Your task to perform on an android device: turn off location Image 0: 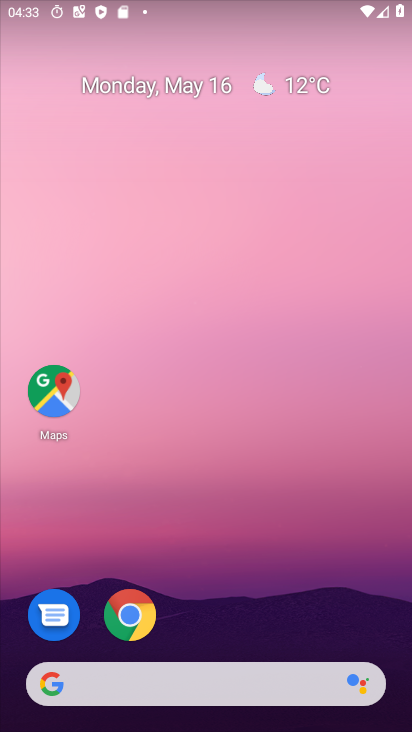
Step 0: drag from (394, 714) to (211, 0)
Your task to perform on an android device: turn off location Image 1: 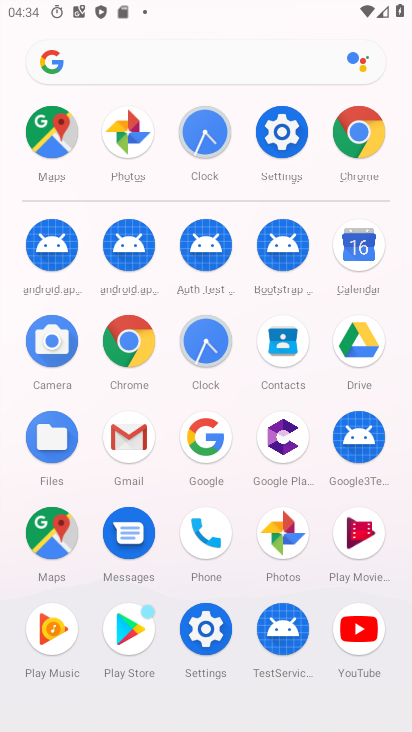
Step 1: click (210, 351)
Your task to perform on an android device: turn off location Image 2: 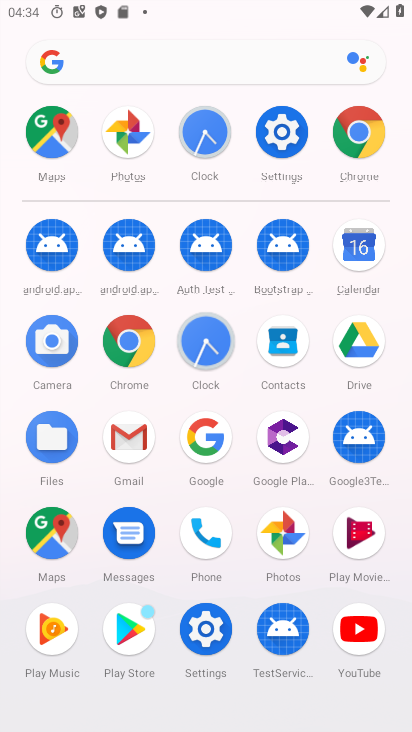
Step 2: click (210, 349)
Your task to perform on an android device: turn off location Image 3: 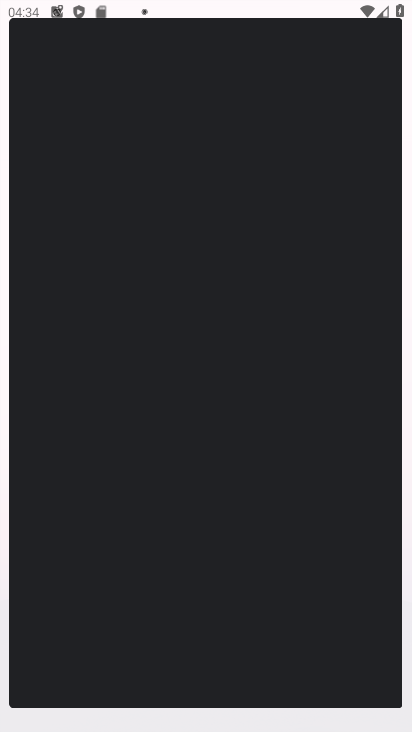
Step 3: click (210, 348)
Your task to perform on an android device: turn off location Image 4: 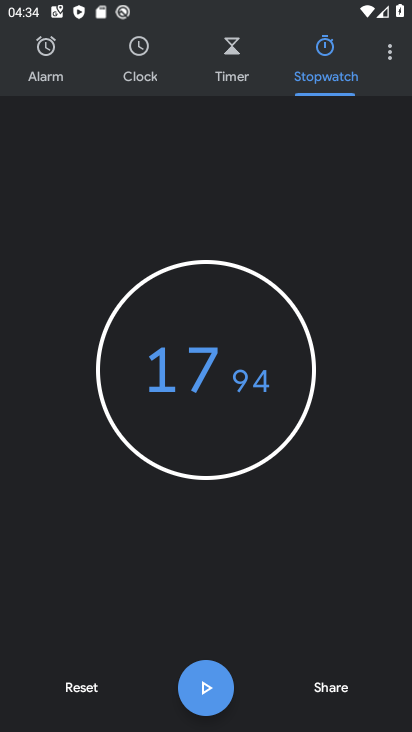
Step 4: click (390, 62)
Your task to perform on an android device: turn off location Image 5: 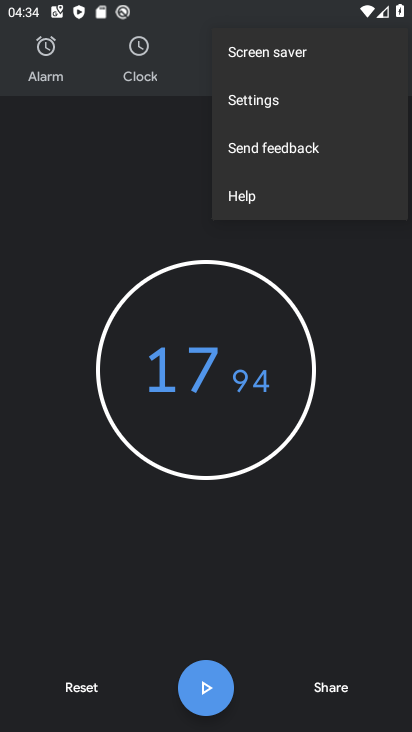
Step 5: click (252, 104)
Your task to perform on an android device: turn off location Image 6: 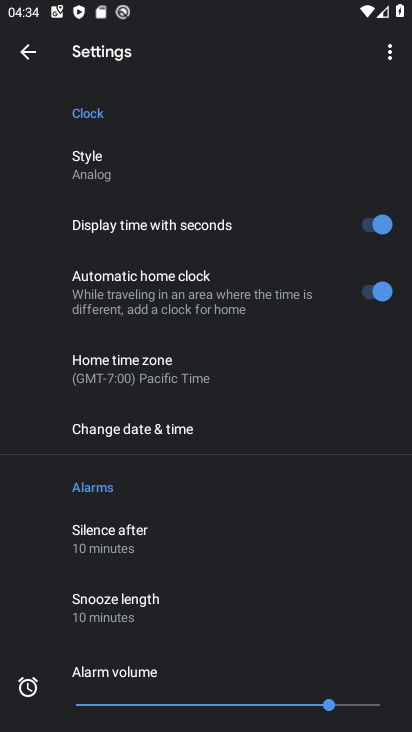
Step 6: click (32, 61)
Your task to perform on an android device: turn off location Image 7: 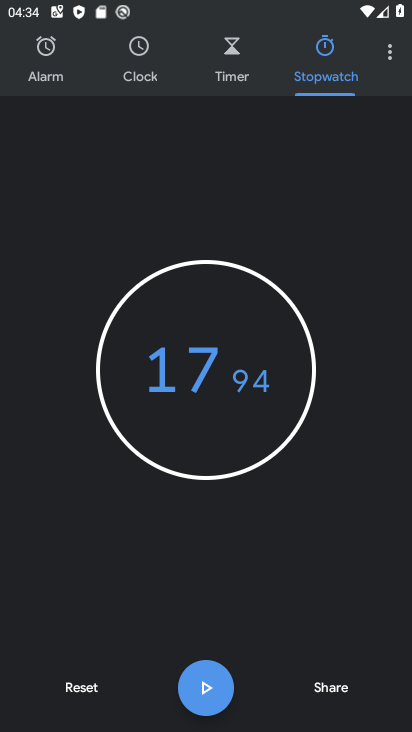
Step 7: click (382, 50)
Your task to perform on an android device: turn off location Image 8: 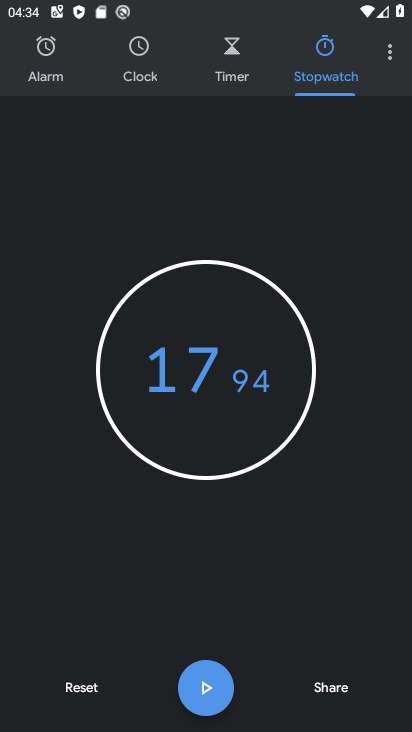
Step 8: click (387, 54)
Your task to perform on an android device: turn off location Image 9: 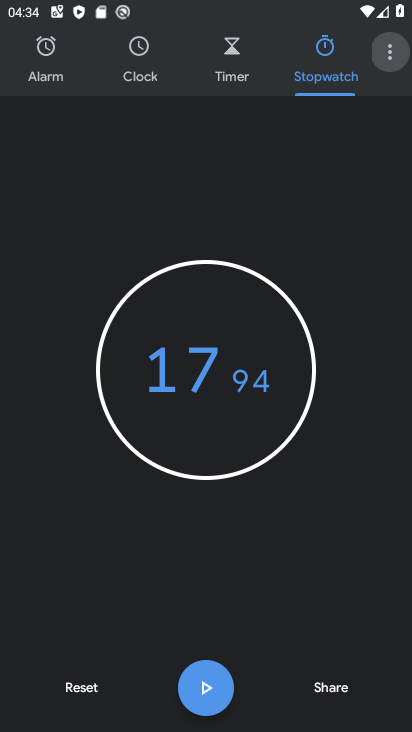
Step 9: click (393, 54)
Your task to perform on an android device: turn off location Image 10: 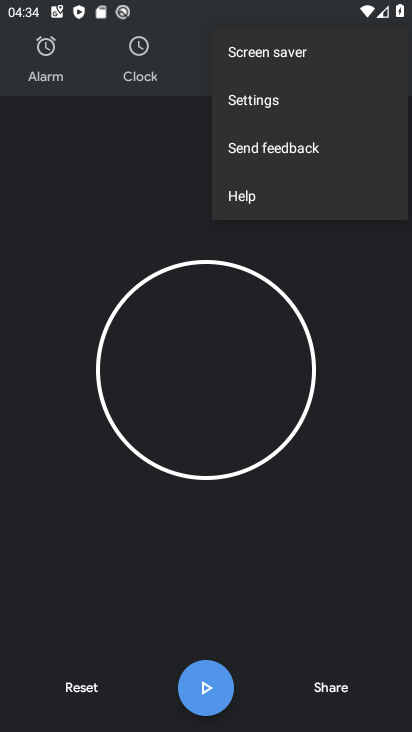
Step 10: click (397, 57)
Your task to perform on an android device: turn off location Image 11: 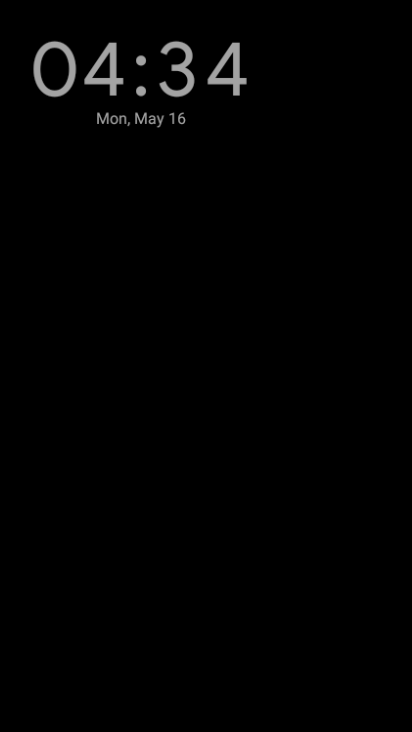
Step 11: press back button
Your task to perform on an android device: turn off location Image 12: 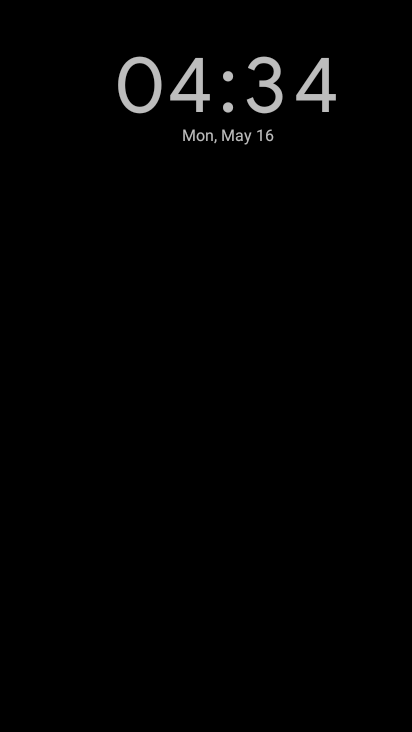
Step 12: press back button
Your task to perform on an android device: turn off location Image 13: 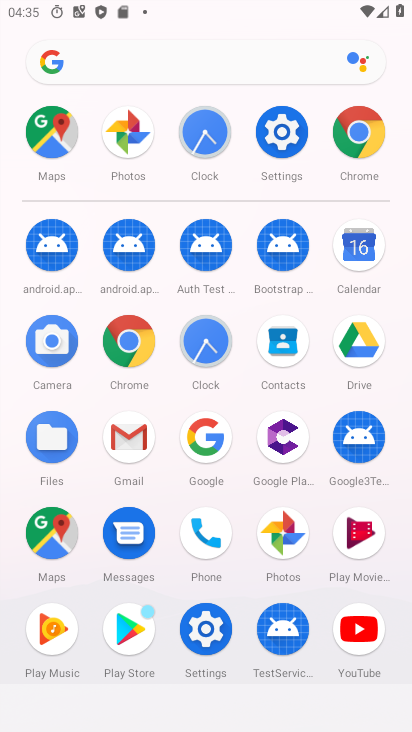
Step 13: click (287, 144)
Your task to perform on an android device: turn off location Image 14: 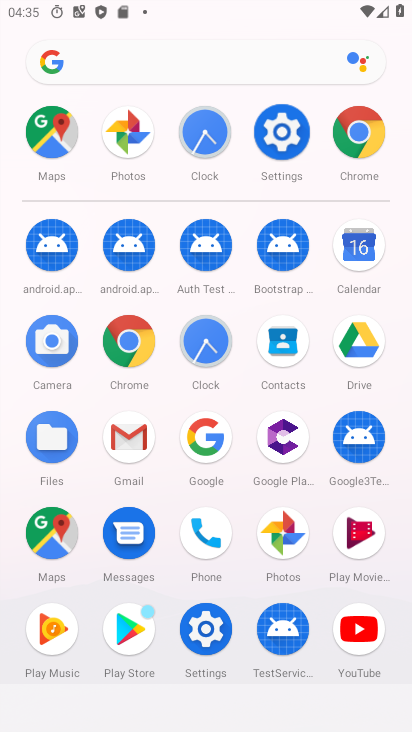
Step 14: click (285, 135)
Your task to perform on an android device: turn off location Image 15: 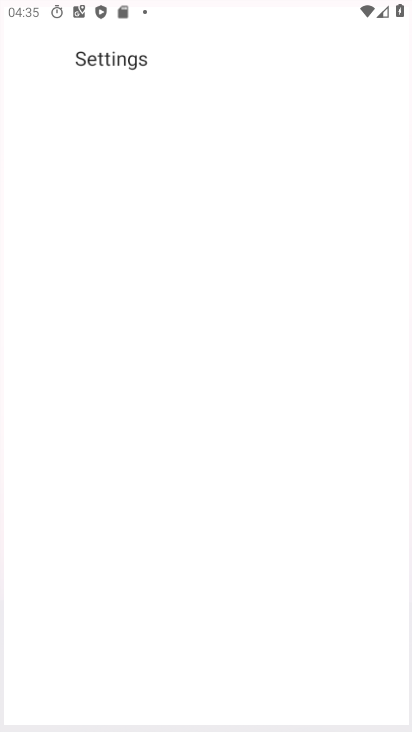
Step 15: click (278, 135)
Your task to perform on an android device: turn off location Image 16: 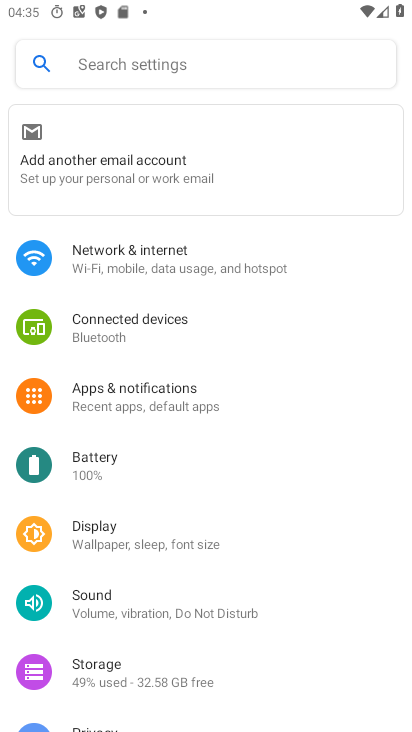
Step 16: drag from (150, 468) to (83, 121)
Your task to perform on an android device: turn off location Image 17: 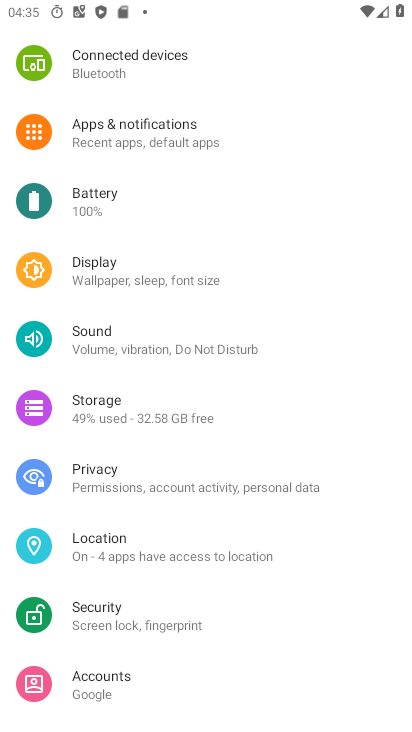
Step 17: drag from (164, 573) to (131, 204)
Your task to perform on an android device: turn off location Image 18: 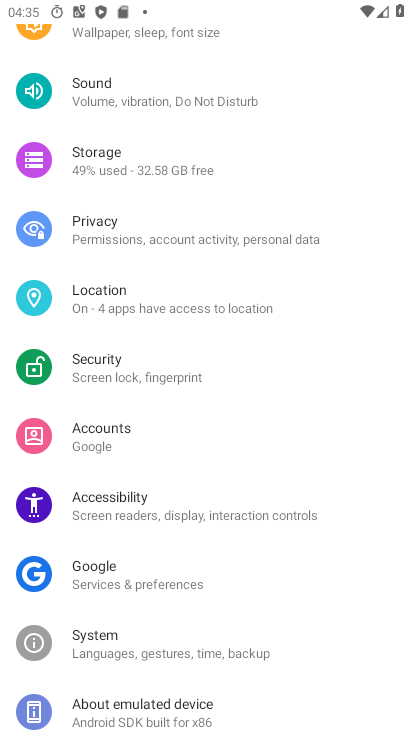
Step 18: drag from (72, 186) to (75, 22)
Your task to perform on an android device: turn off location Image 19: 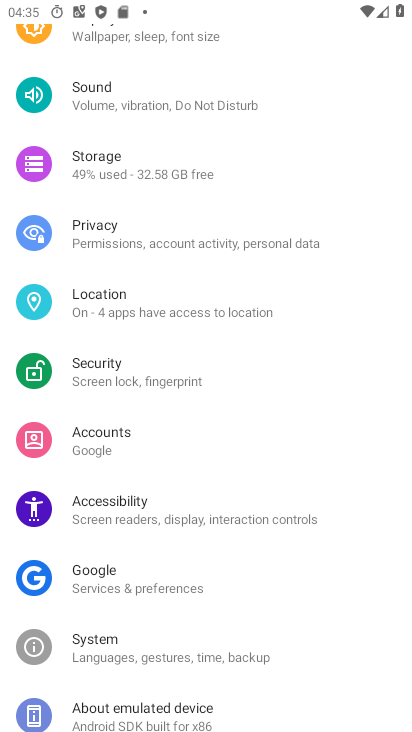
Step 19: click (121, 304)
Your task to perform on an android device: turn off location Image 20: 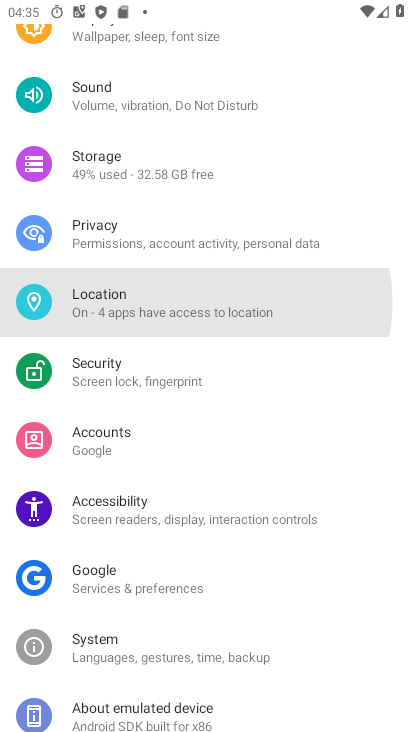
Step 20: click (121, 304)
Your task to perform on an android device: turn off location Image 21: 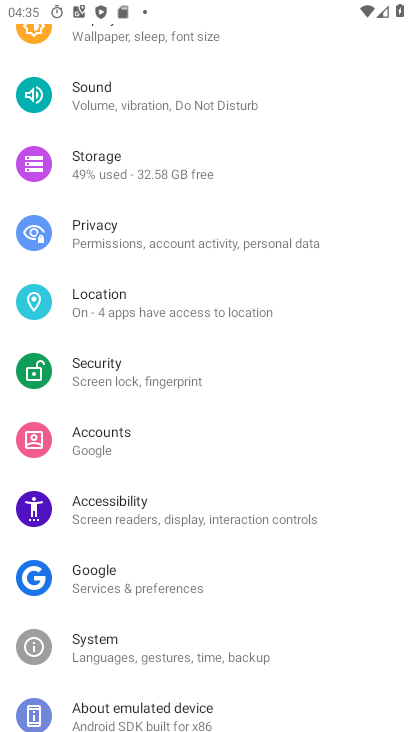
Step 21: click (130, 315)
Your task to perform on an android device: turn off location Image 22: 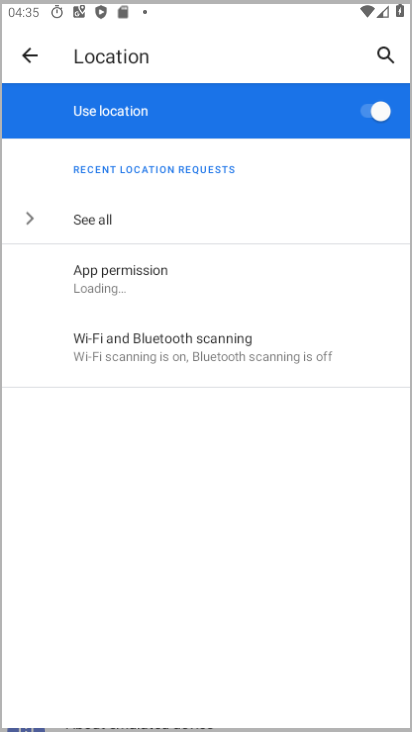
Step 22: click (133, 318)
Your task to perform on an android device: turn off location Image 23: 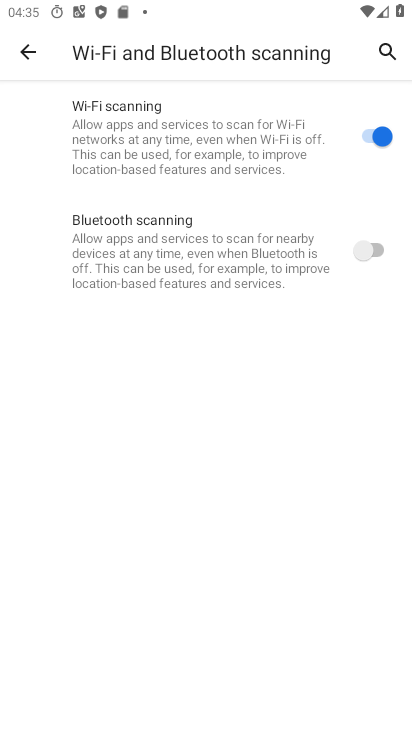
Step 23: click (27, 61)
Your task to perform on an android device: turn off location Image 24: 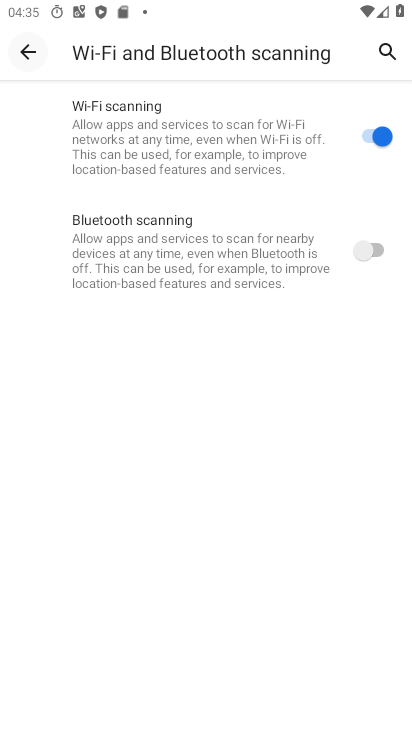
Step 24: click (25, 47)
Your task to perform on an android device: turn off location Image 25: 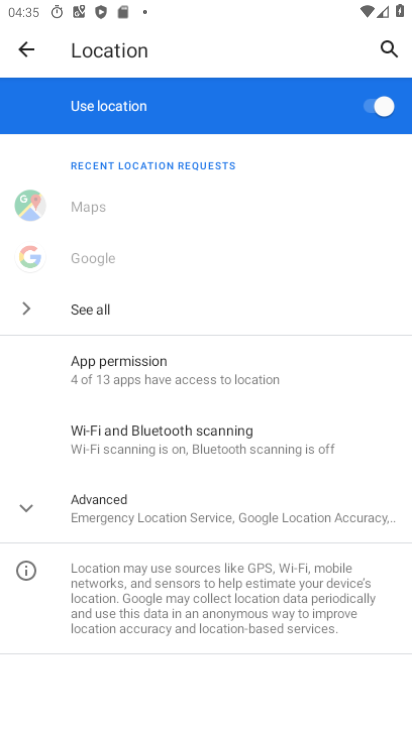
Step 25: click (25, 47)
Your task to perform on an android device: turn off location Image 26: 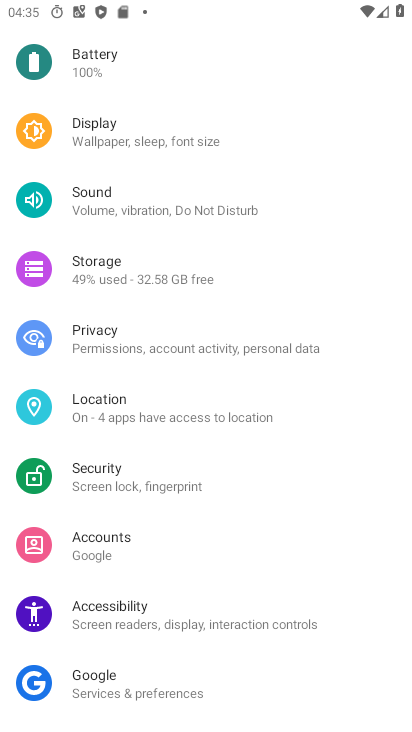
Step 26: click (147, 415)
Your task to perform on an android device: turn off location Image 27: 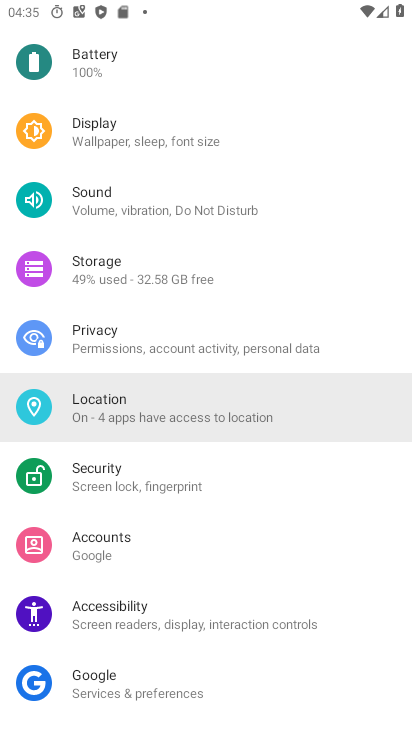
Step 27: click (147, 417)
Your task to perform on an android device: turn off location Image 28: 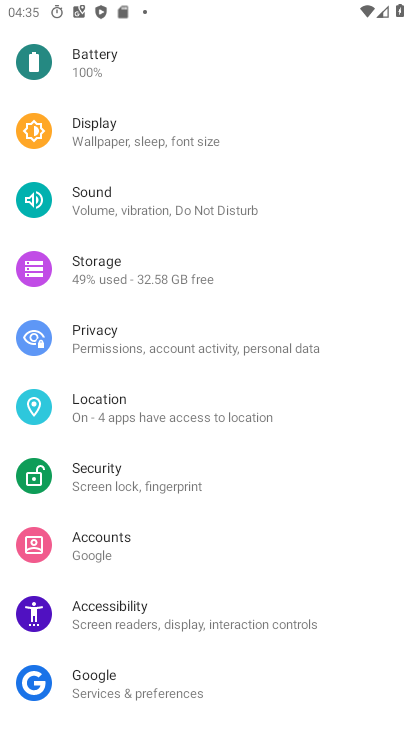
Step 28: click (147, 417)
Your task to perform on an android device: turn off location Image 29: 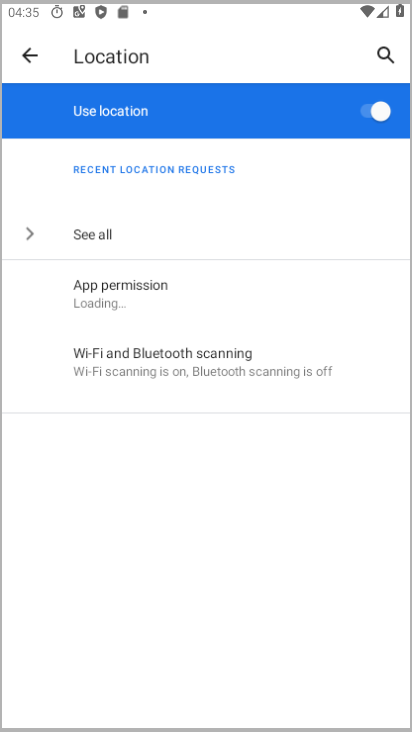
Step 29: click (147, 418)
Your task to perform on an android device: turn off location Image 30: 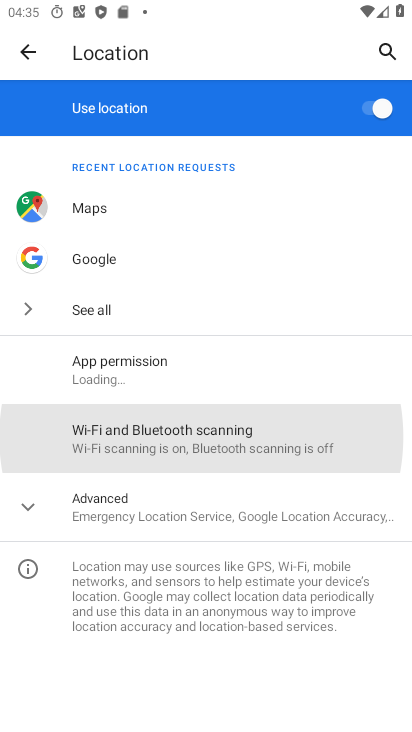
Step 30: click (147, 418)
Your task to perform on an android device: turn off location Image 31: 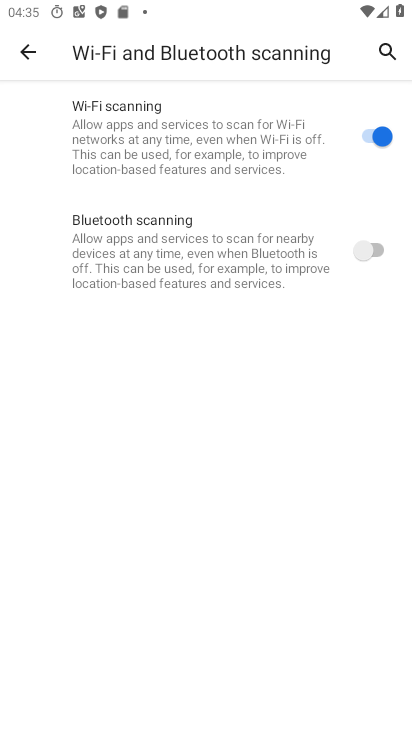
Step 31: click (34, 47)
Your task to perform on an android device: turn off location Image 32: 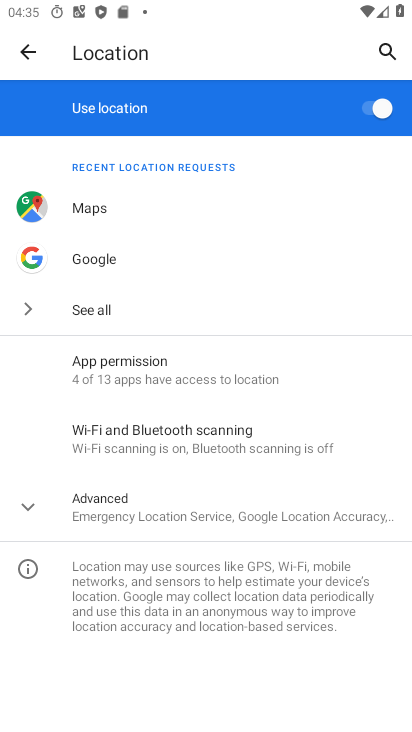
Step 32: click (380, 106)
Your task to perform on an android device: turn off location Image 33: 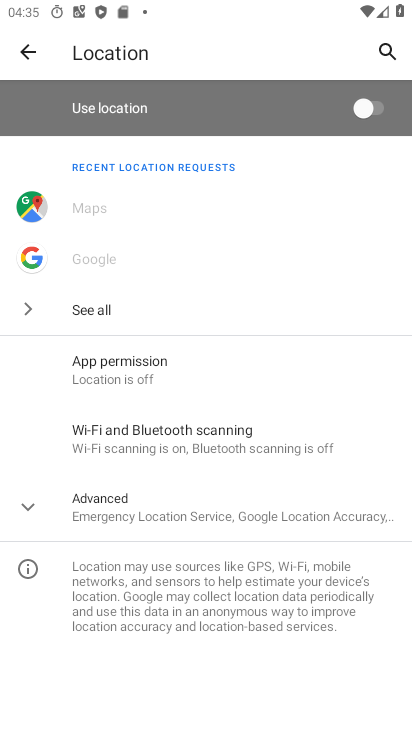
Step 33: task complete